Your task to perform on an android device: check android version Image 0: 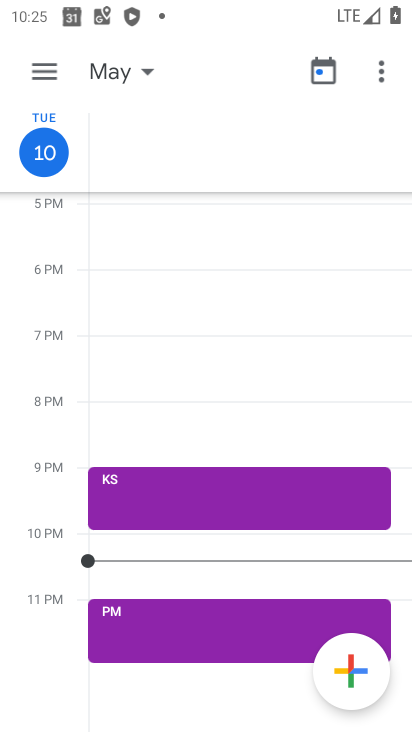
Step 0: press home button
Your task to perform on an android device: check android version Image 1: 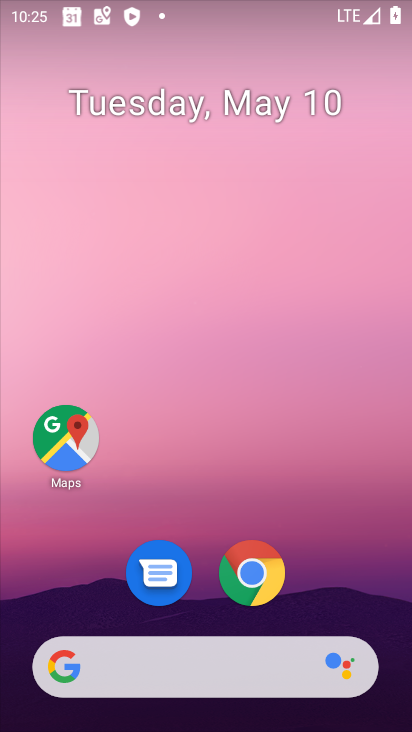
Step 1: drag from (321, 545) to (217, 18)
Your task to perform on an android device: check android version Image 2: 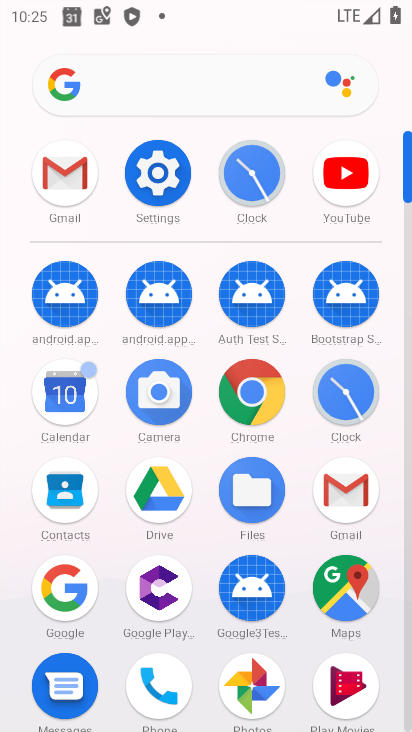
Step 2: click (158, 174)
Your task to perform on an android device: check android version Image 3: 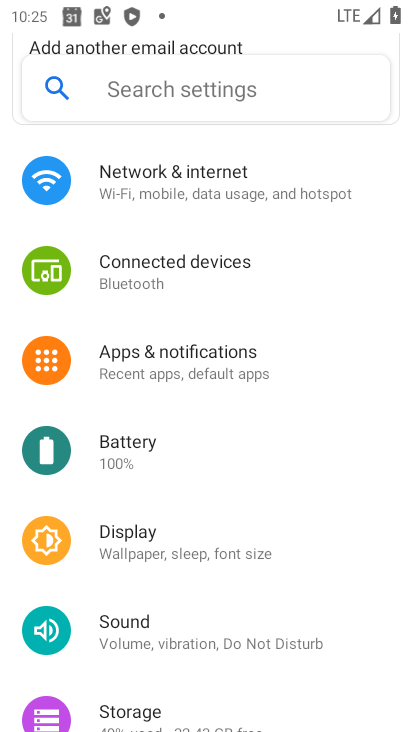
Step 3: drag from (130, 588) to (130, 218)
Your task to perform on an android device: check android version Image 4: 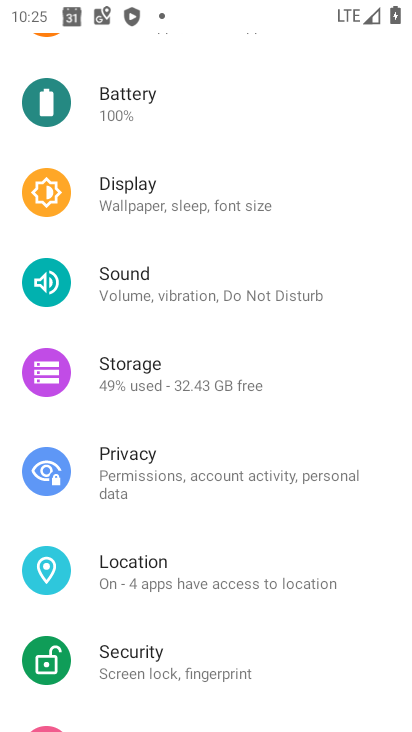
Step 4: drag from (140, 619) to (135, 251)
Your task to perform on an android device: check android version Image 5: 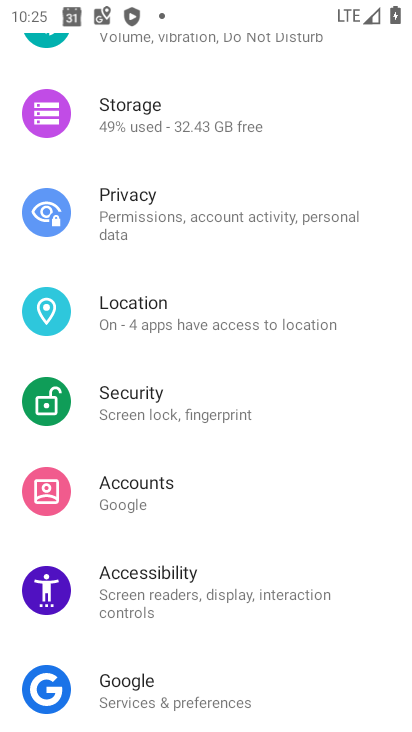
Step 5: drag from (153, 651) to (129, 295)
Your task to perform on an android device: check android version Image 6: 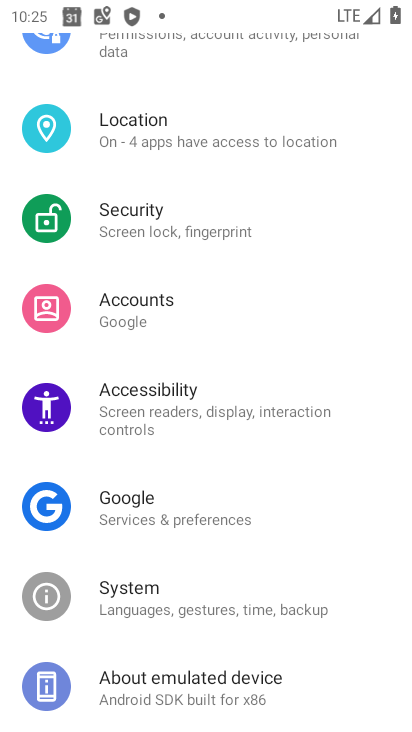
Step 6: drag from (161, 629) to (138, 337)
Your task to perform on an android device: check android version Image 7: 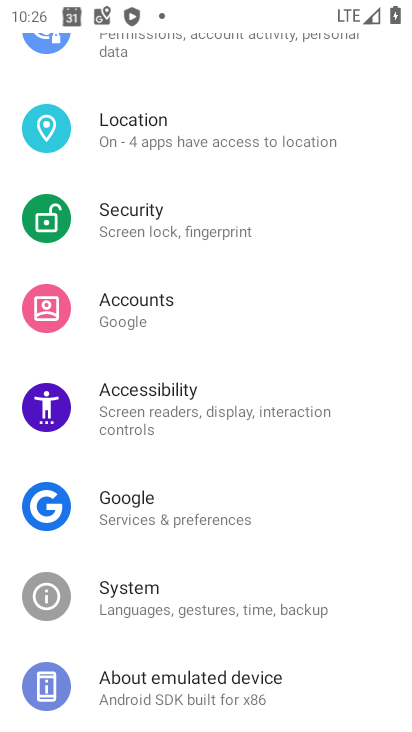
Step 7: click (161, 676)
Your task to perform on an android device: check android version Image 8: 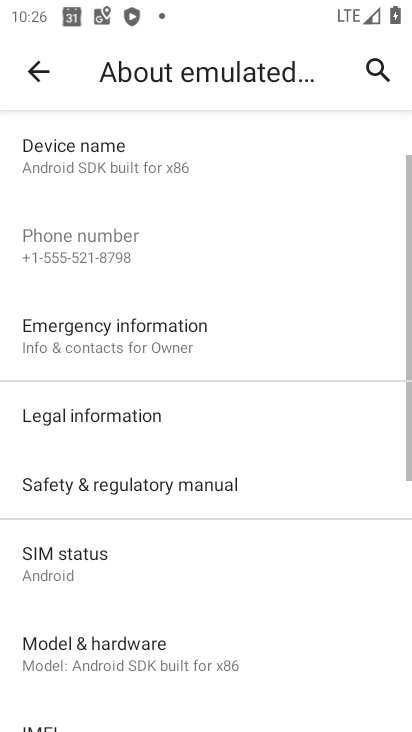
Step 8: drag from (152, 531) to (131, 259)
Your task to perform on an android device: check android version Image 9: 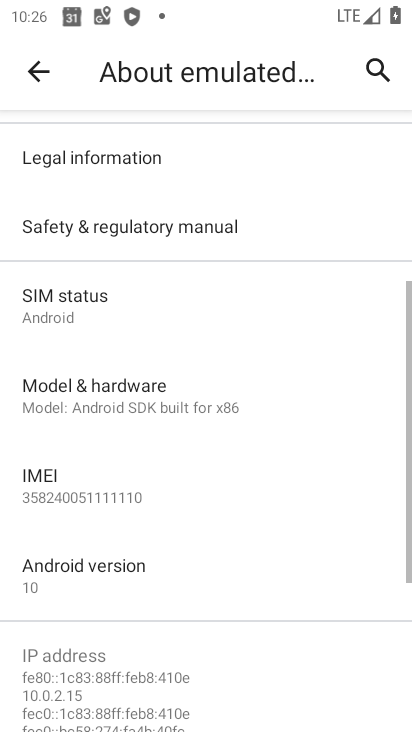
Step 9: click (76, 569)
Your task to perform on an android device: check android version Image 10: 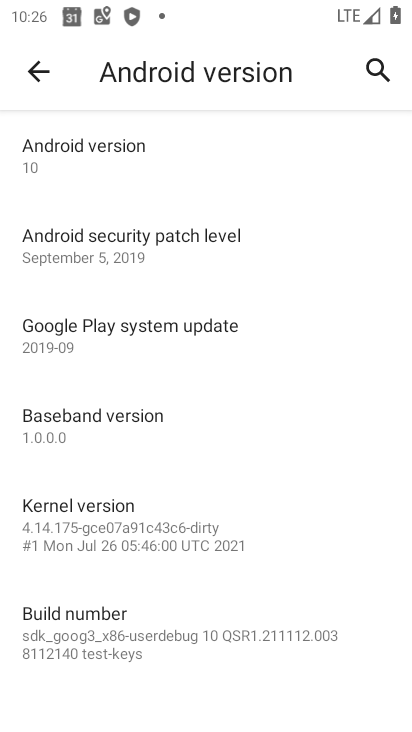
Step 10: task complete